Your task to perform on an android device: Open notification settings Image 0: 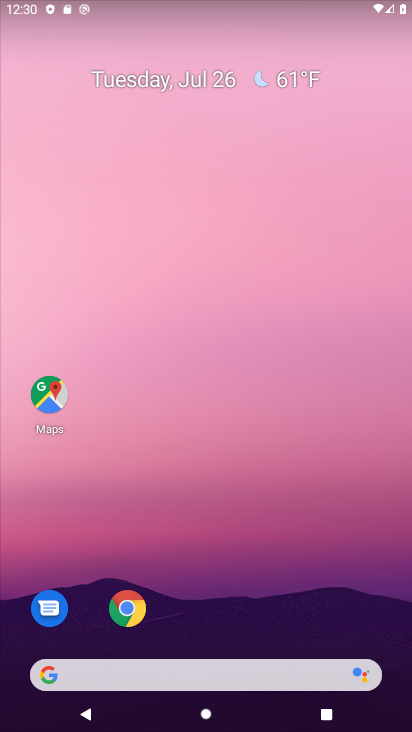
Step 0: click (366, 68)
Your task to perform on an android device: Open notification settings Image 1: 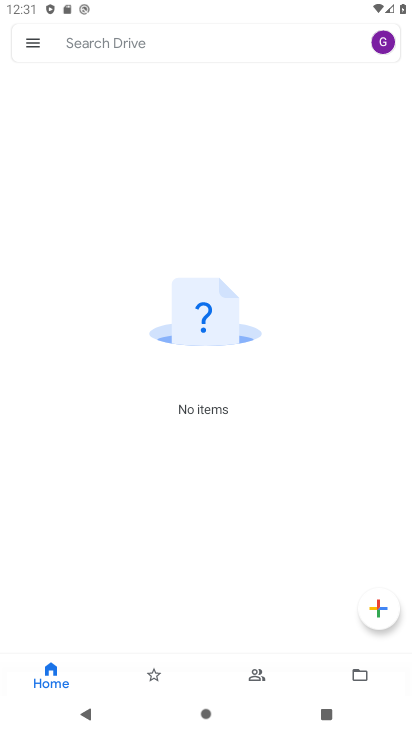
Step 1: press home button
Your task to perform on an android device: Open notification settings Image 2: 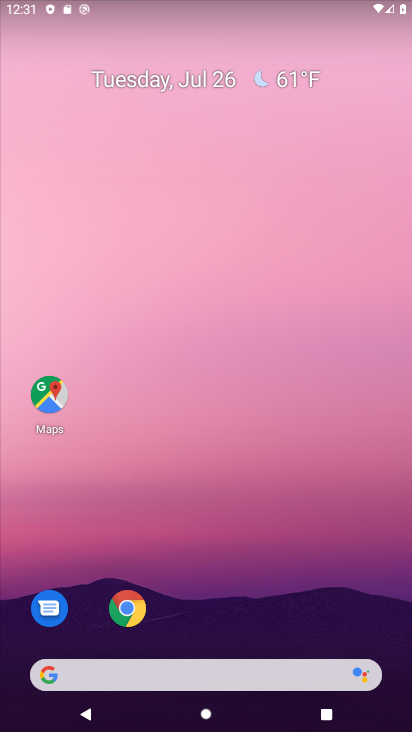
Step 2: drag from (330, 610) to (360, 166)
Your task to perform on an android device: Open notification settings Image 3: 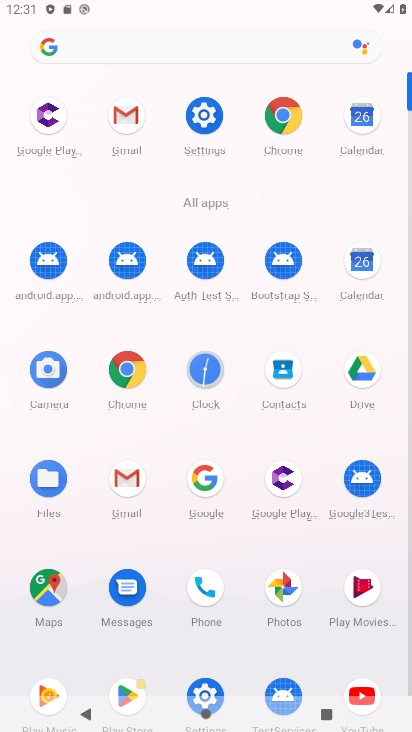
Step 3: click (201, 116)
Your task to perform on an android device: Open notification settings Image 4: 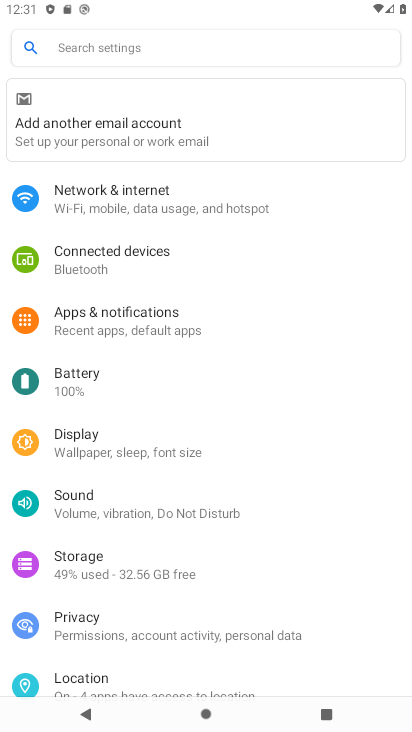
Step 4: drag from (306, 453) to (313, 348)
Your task to perform on an android device: Open notification settings Image 5: 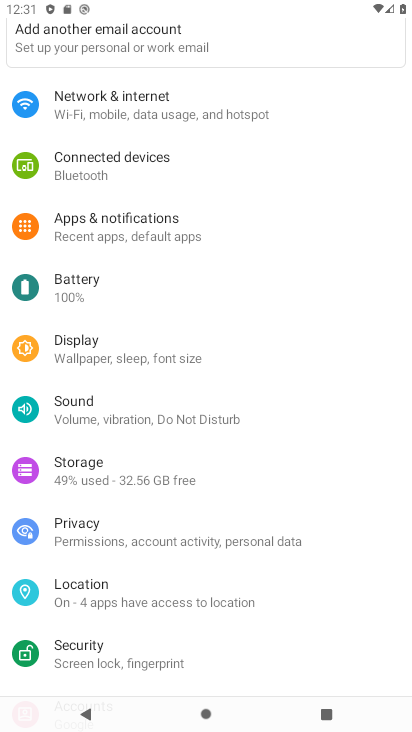
Step 5: drag from (313, 524) to (313, 416)
Your task to perform on an android device: Open notification settings Image 6: 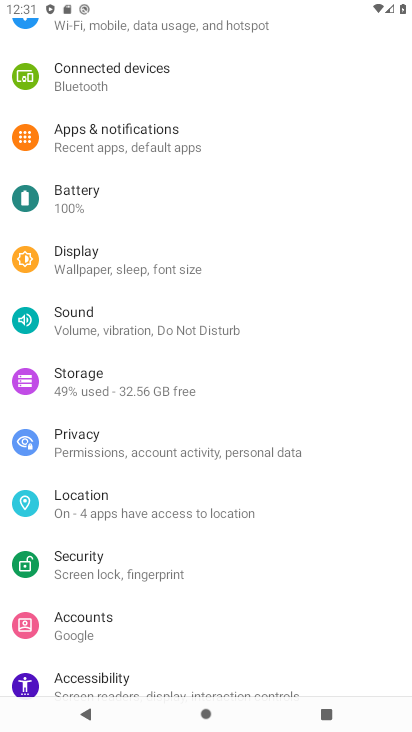
Step 6: drag from (337, 544) to (337, 420)
Your task to perform on an android device: Open notification settings Image 7: 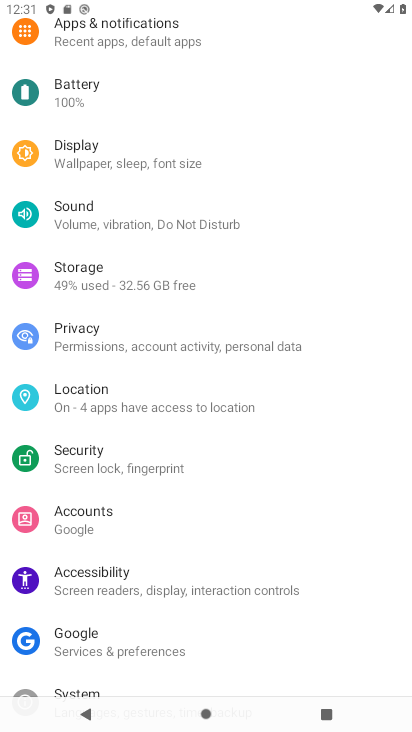
Step 7: drag from (337, 556) to (329, 383)
Your task to perform on an android device: Open notification settings Image 8: 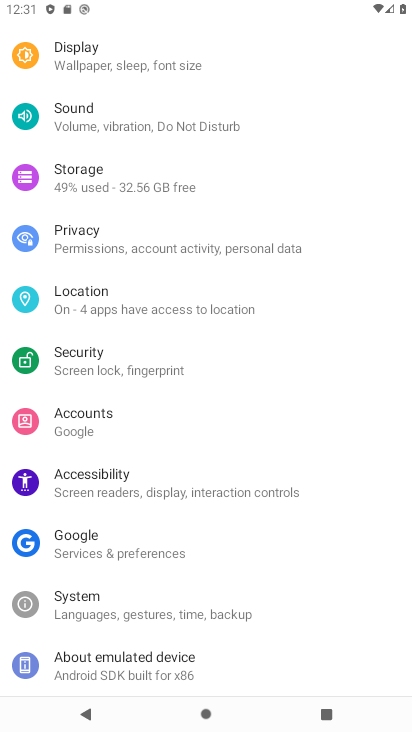
Step 8: drag from (319, 560) to (323, 472)
Your task to perform on an android device: Open notification settings Image 9: 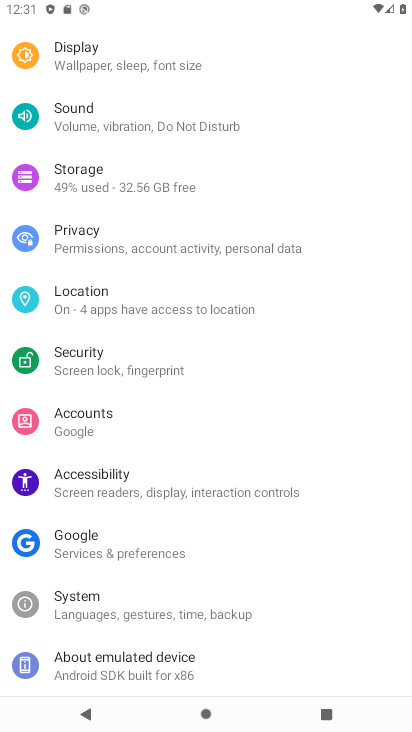
Step 9: drag from (326, 348) to (321, 431)
Your task to perform on an android device: Open notification settings Image 10: 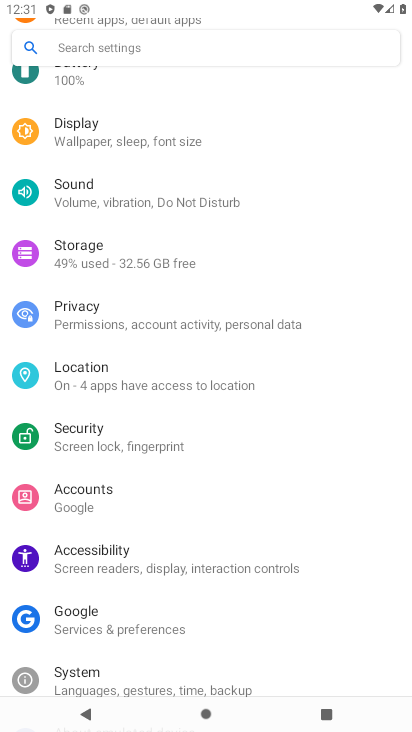
Step 10: drag from (331, 537) to (344, 383)
Your task to perform on an android device: Open notification settings Image 11: 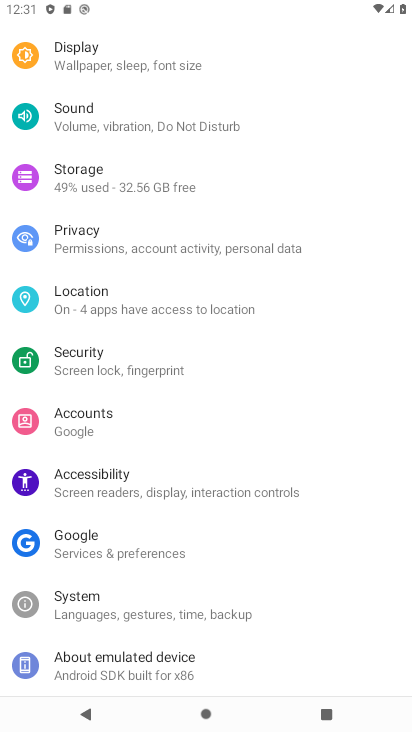
Step 11: drag from (316, 330) to (316, 449)
Your task to perform on an android device: Open notification settings Image 12: 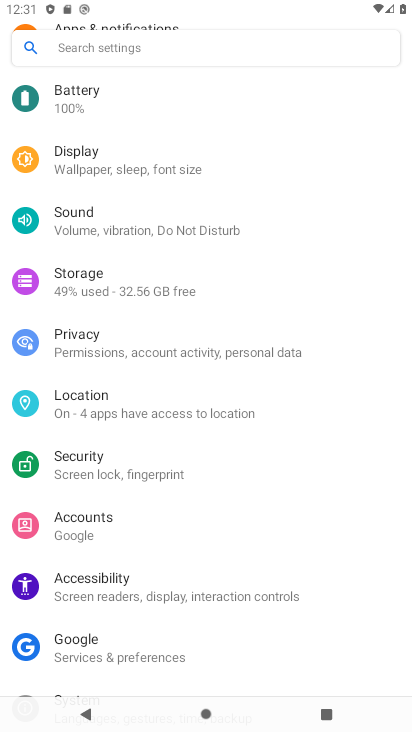
Step 12: drag from (316, 274) to (321, 410)
Your task to perform on an android device: Open notification settings Image 13: 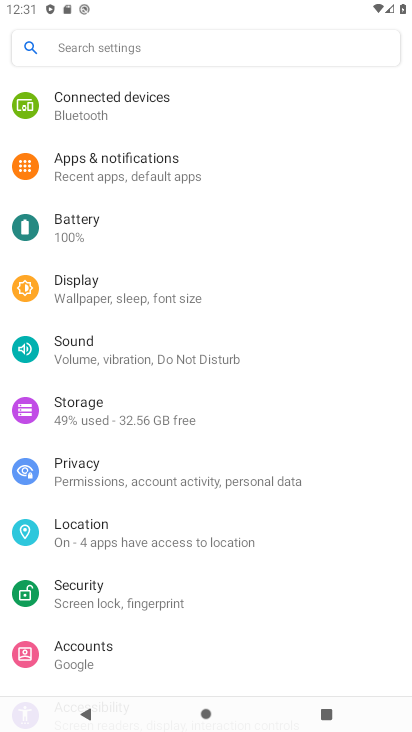
Step 13: drag from (324, 249) to (337, 453)
Your task to perform on an android device: Open notification settings Image 14: 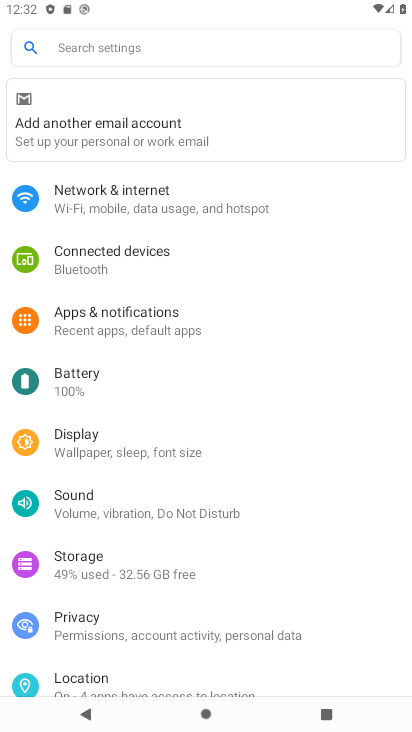
Step 14: click (176, 307)
Your task to perform on an android device: Open notification settings Image 15: 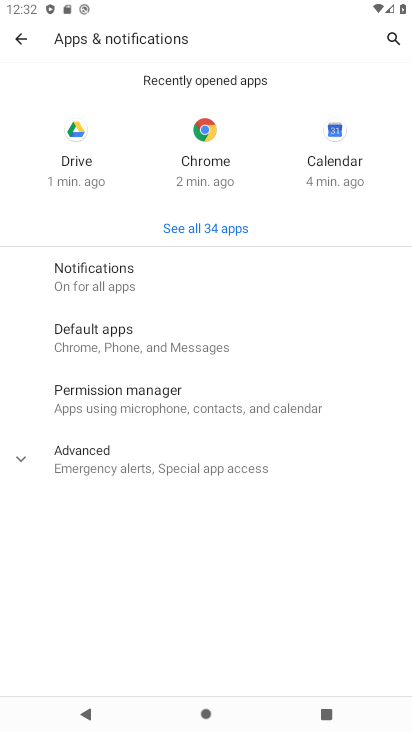
Step 15: click (137, 285)
Your task to perform on an android device: Open notification settings Image 16: 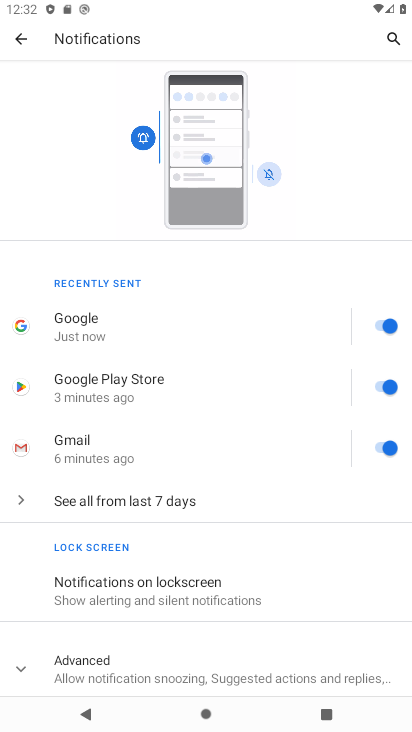
Step 16: task complete